Your task to perform on an android device: turn off location Image 0: 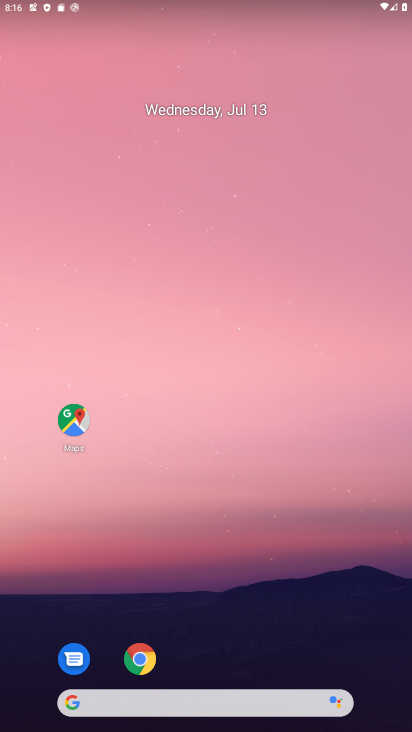
Step 0: drag from (199, 653) to (145, 112)
Your task to perform on an android device: turn off location Image 1: 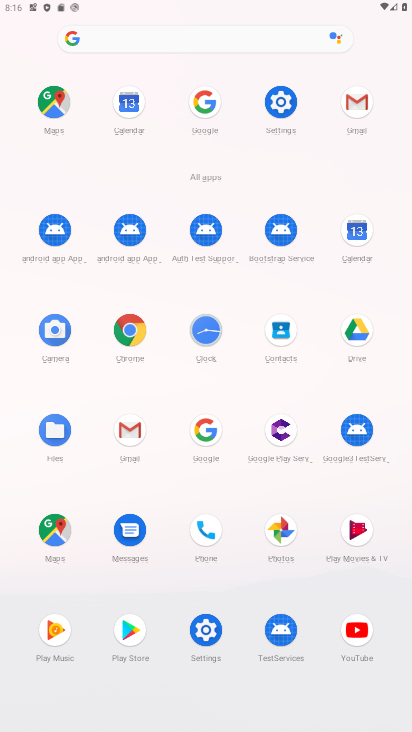
Step 1: click (284, 81)
Your task to perform on an android device: turn off location Image 2: 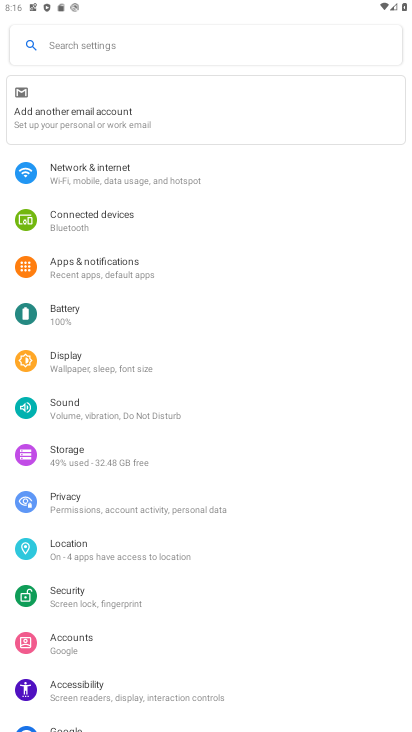
Step 2: click (68, 541)
Your task to perform on an android device: turn off location Image 3: 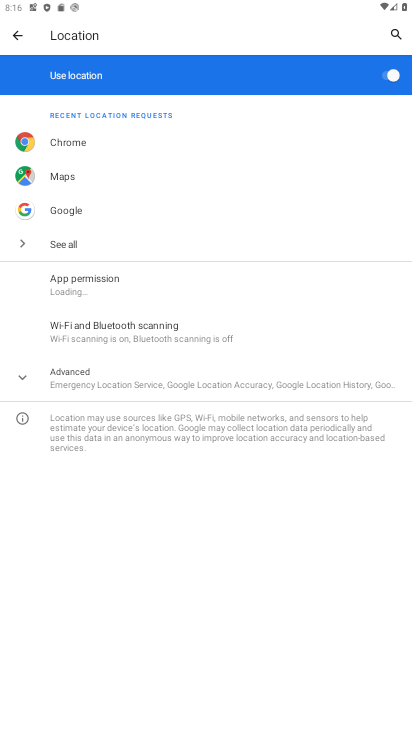
Step 3: click (383, 82)
Your task to perform on an android device: turn off location Image 4: 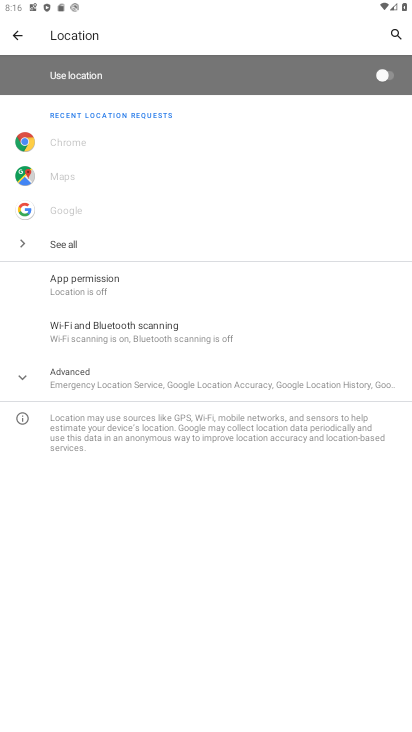
Step 4: task complete